Your task to perform on an android device: uninstall "Google News" Image 0: 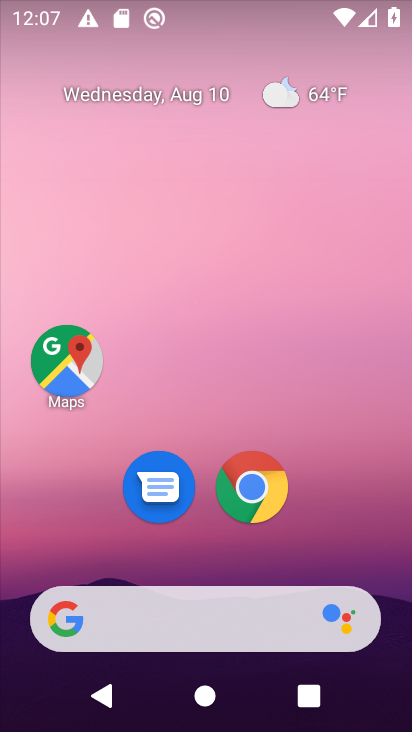
Step 0: drag from (210, 565) to (217, 8)
Your task to perform on an android device: uninstall "Google News" Image 1: 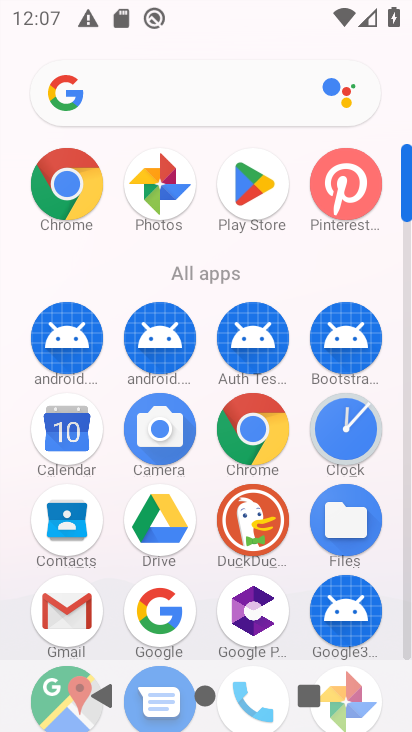
Step 1: click (240, 198)
Your task to perform on an android device: uninstall "Google News" Image 2: 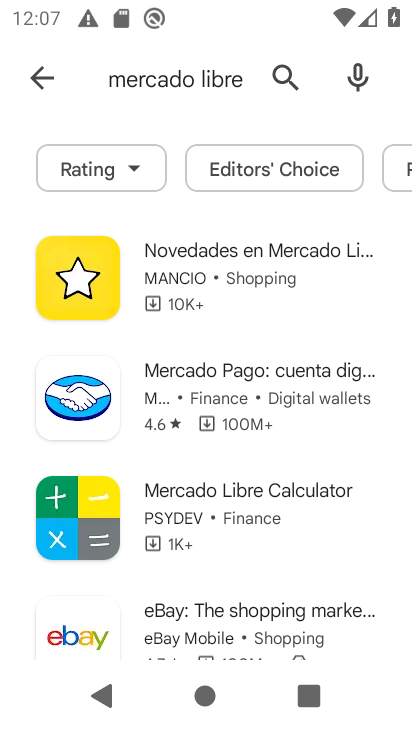
Step 2: click (176, 72)
Your task to perform on an android device: uninstall "Google News" Image 3: 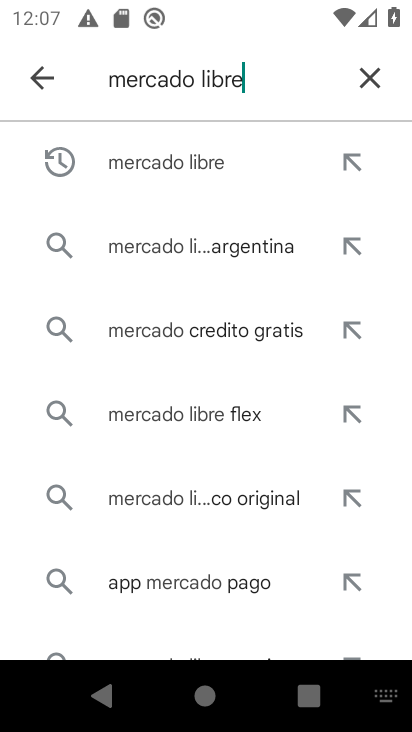
Step 3: click (374, 78)
Your task to perform on an android device: uninstall "Google News" Image 4: 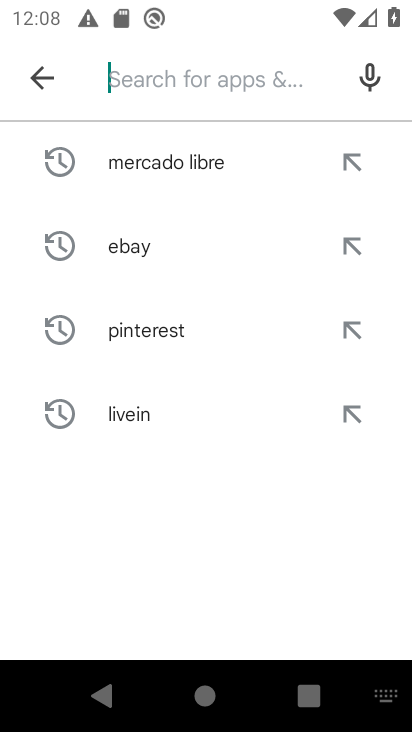
Step 4: type "google news"
Your task to perform on an android device: uninstall "Google News" Image 5: 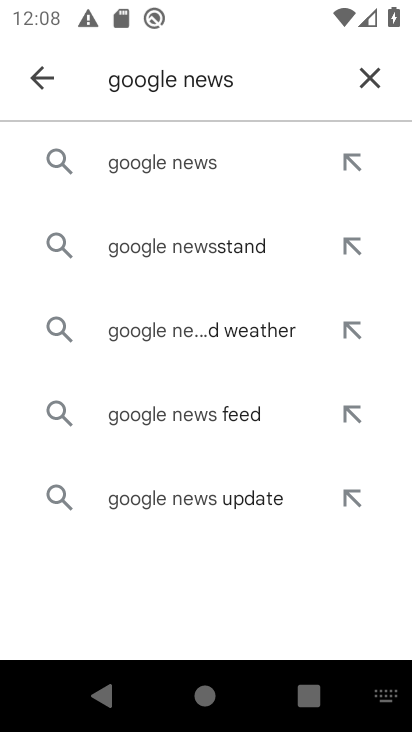
Step 5: click (199, 157)
Your task to perform on an android device: uninstall "Google News" Image 6: 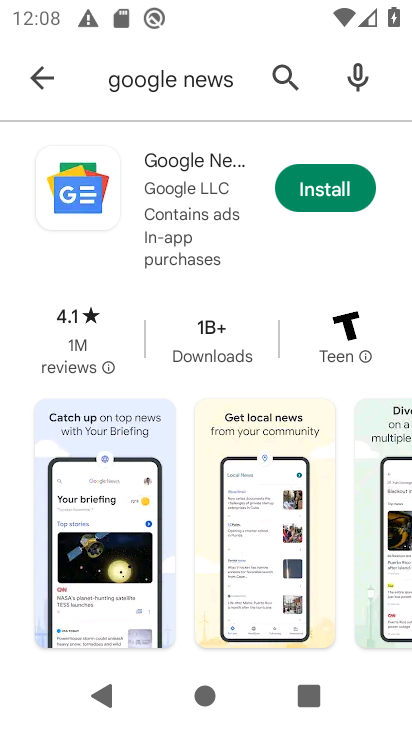
Step 6: task complete